Your task to perform on an android device: check the backup settings in the google photos Image 0: 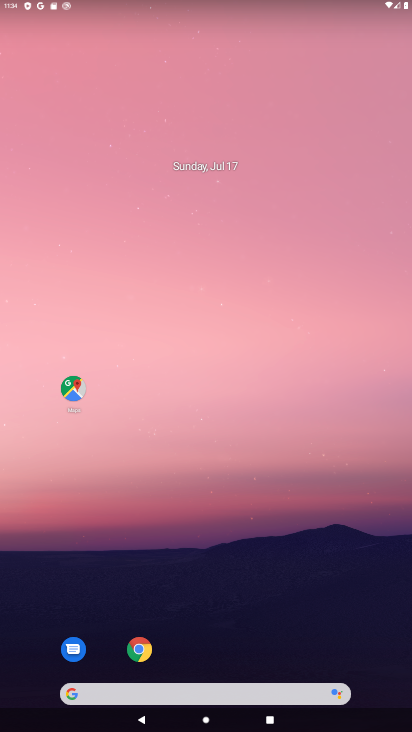
Step 0: drag from (199, 666) to (185, 289)
Your task to perform on an android device: check the backup settings in the google photos Image 1: 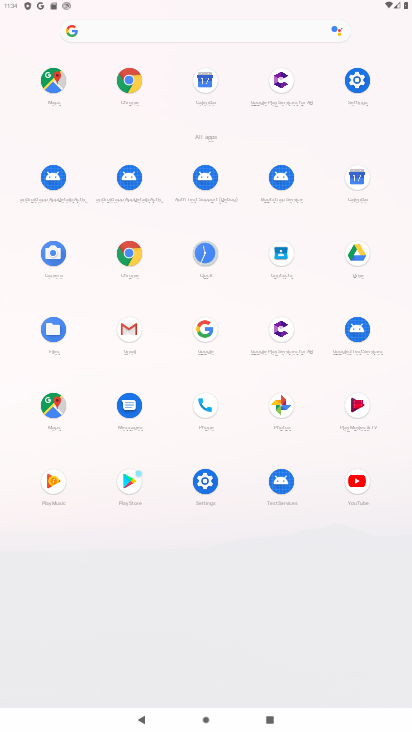
Step 1: click (279, 402)
Your task to perform on an android device: check the backup settings in the google photos Image 2: 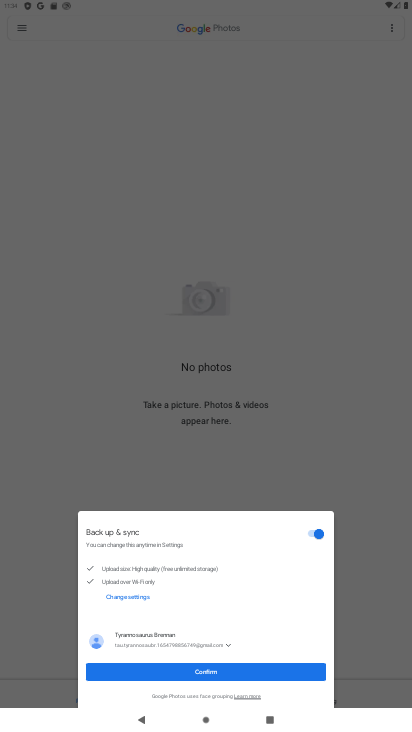
Step 2: click (209, 670)
Your task to perform on an android device: check the backup settings in the google photos Image 3: 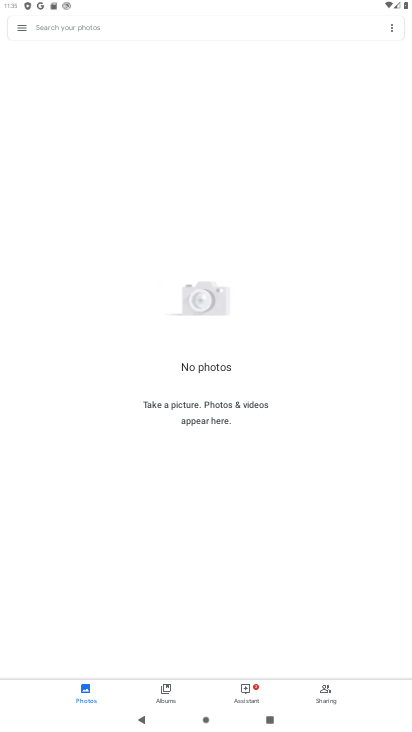
Step 3: click (14, 31)
Your task to perform on an android device: check the backup settings in the google photos Image 4: 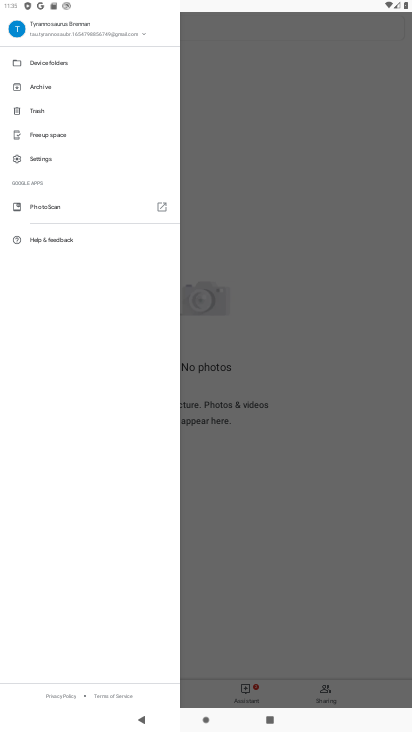
Step 4: click (125, 72)
Your task to perform on an android device: check the backup settings in the google photos Image 5: 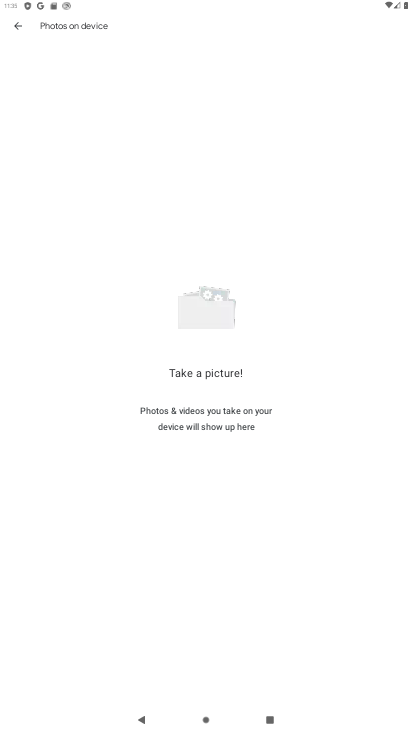
Step 5: task complete